Your task to perform on an android device: Open my contact list Image 0: 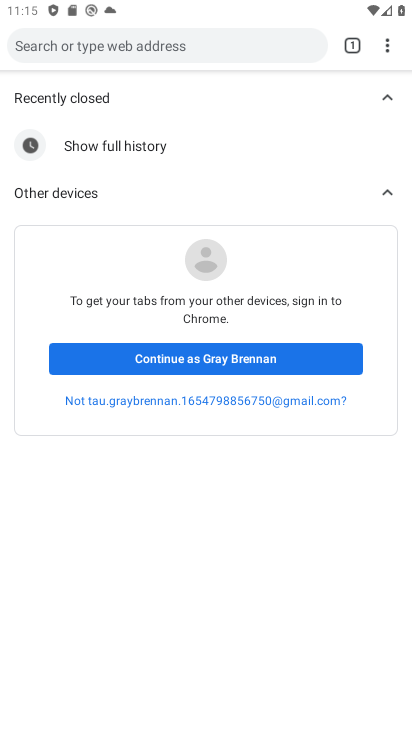
Step 0: press home button
Your task to perform on an android device: Open my contact list Image 1: 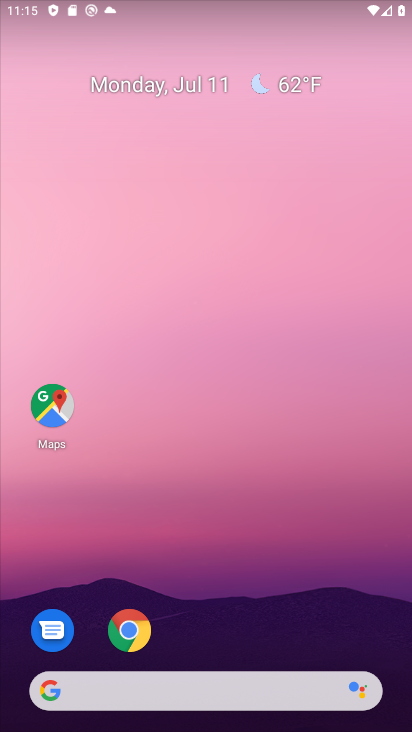
Step 1: drag from (256, 694) to (343, 4)
Your task to perform on an android device: Open my contact list Image 2: 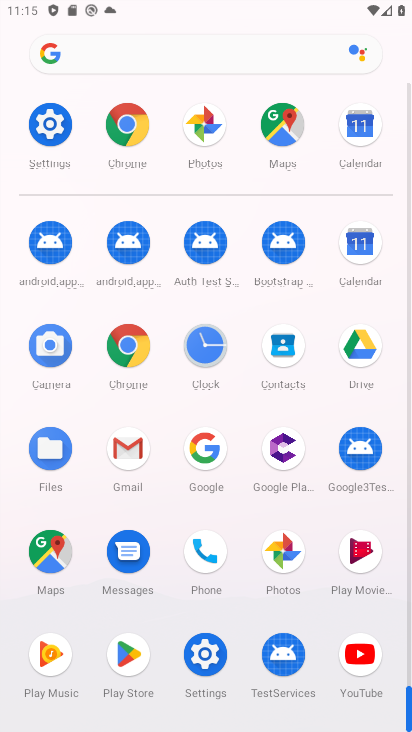
Step 2: click (273, 339)
Your task to perform on an android device: Open my contact list Image 3: 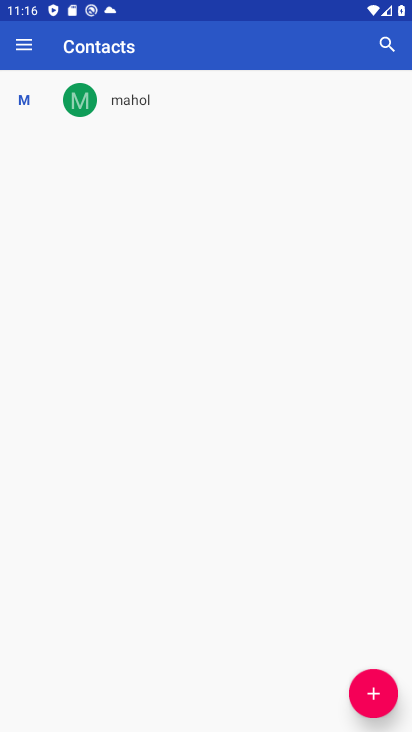
Step 3: task complete